Your task to perform on an android device: When is my next appointment? Image 0: 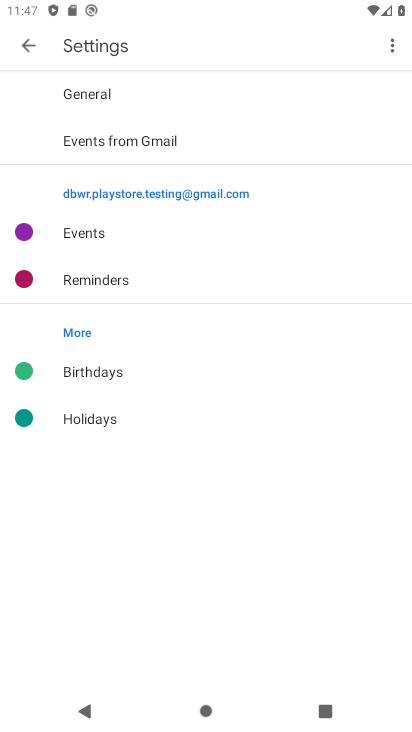
Step 0: press home button
Your task to perform on an android device: When is my next appointment? Image 1: 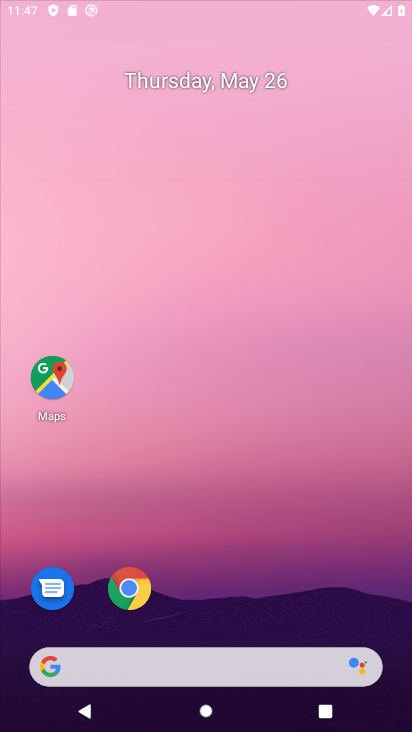
Step 1: press home button
Your task to perform on an android device: When is my next appointment? Image 2: 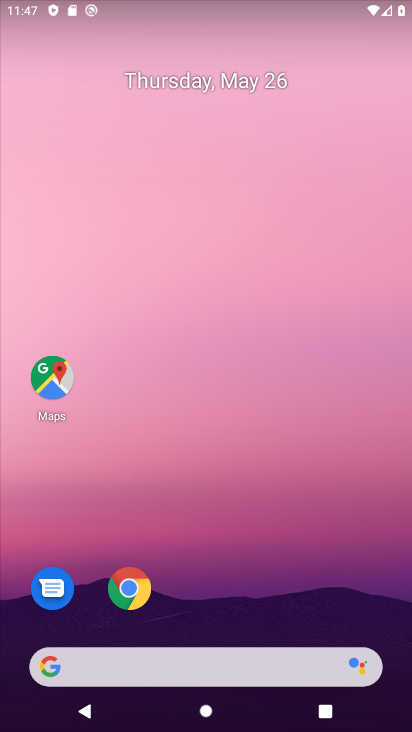
Step 2: drag from (266, 562) to (299, 206)
Your task to perform on an android device: When is my next appointment? Image 3: 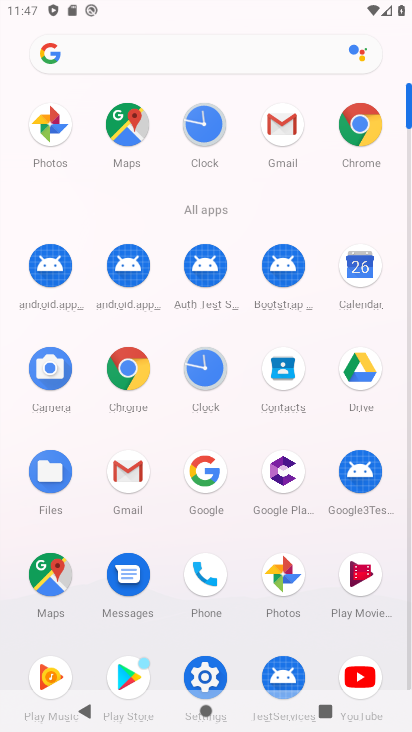
Step 3: click (354, 287)
Your task to perform on an android device: When is my next appointment? Image 4: 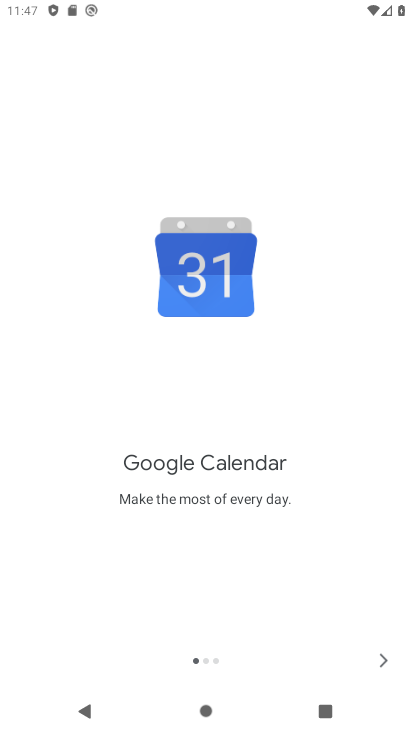
Step 4: click (378, 658)
Your task to perform on an android device: When is my next appointment? Image 5: 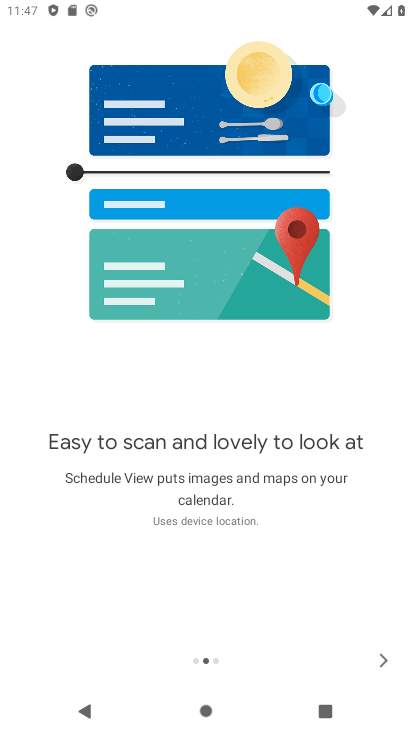
Step 5: click (378, 658)
Your task to perform on an android device: When is my next appointment? Image 6: 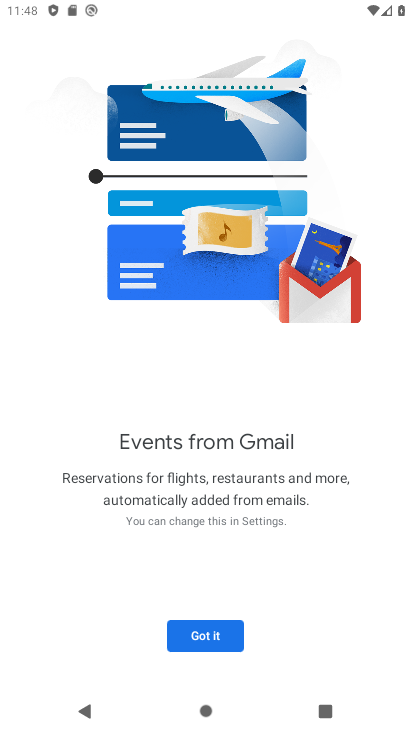
Step 6: click (227, 634)
Your task to perform on an android device: When is my next appointment? Image 7: 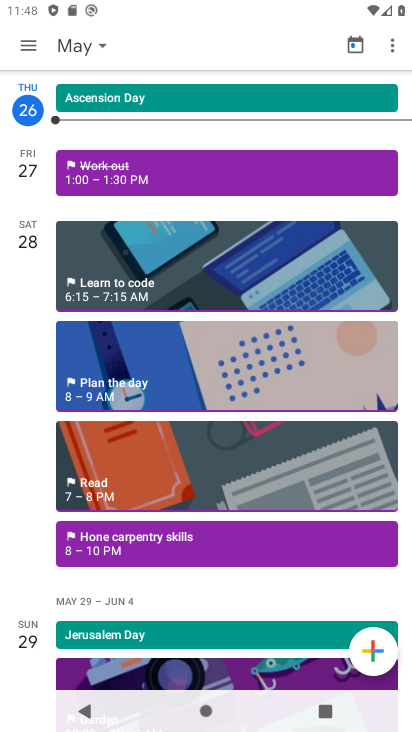
Step 7: drag from (264, 608) to (387, 194)
Your task to perform on an android device: When is my next appointment? Image 8: 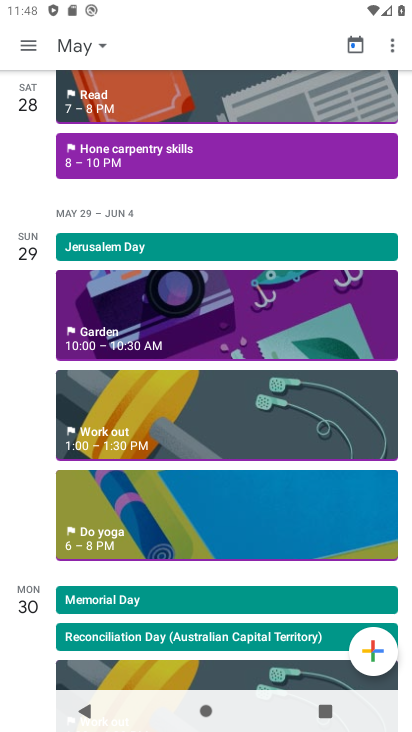
Step 8: drag from (276, 672) to (411, 192)
Your task to perform on an android device: When is my next appointment? Image 9: 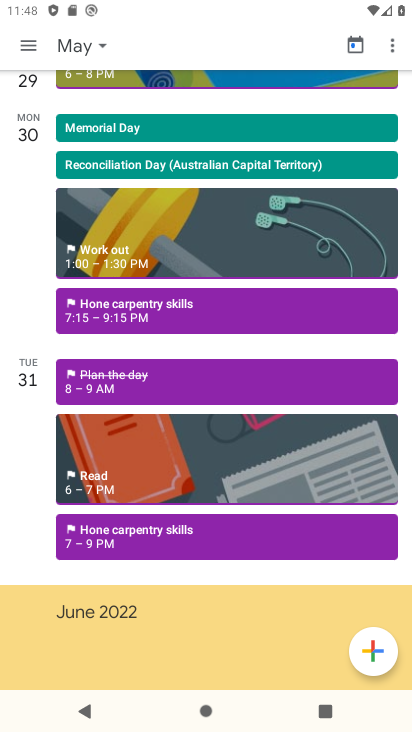
Step 9: drag from (221, 678) to (328, 13)
Your task to perform on an android device: When is my next appointment? Image 10: 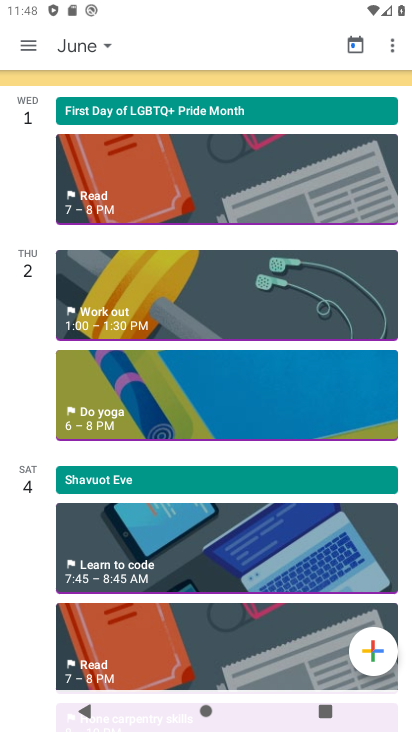
Step 10: drag from (188, 667) to (303, 256)
Your task to perform on an android device: When is my next appointment? Image 11: 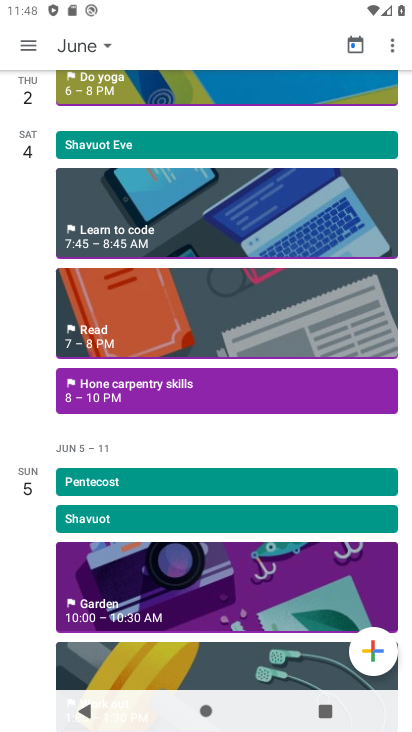
Step 11: drag from (225, 680) to (323, 357)
Your task to perform on an android device: When is my next appointment? Image 12: 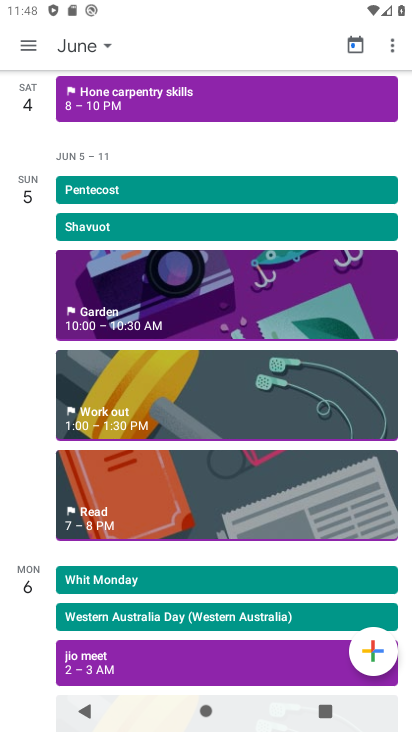
Step 12: click (201, 665)
Your task to perform on an android device: When is my next appointment? Image 13: 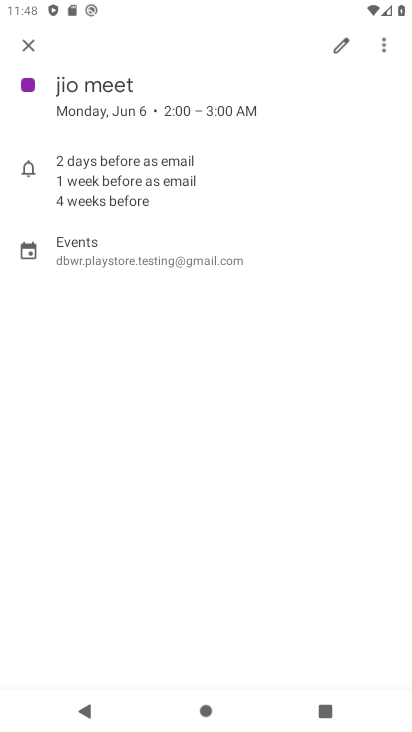
Step 13: task complete